Your task to perform on an android device: Open Youtube and go to "Your channel" Image 0: 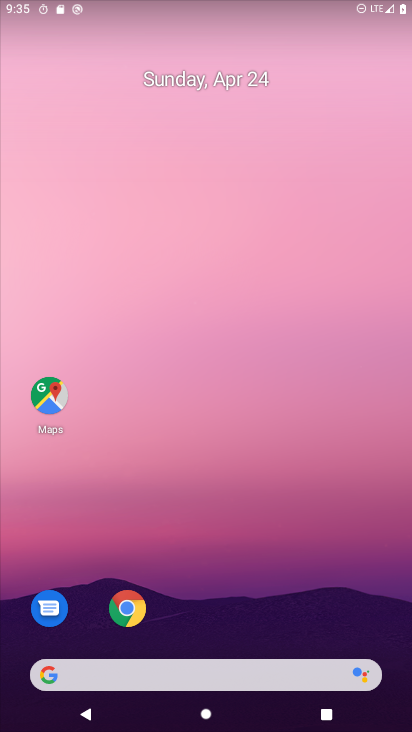
Step 0: drag from (256, 454) to (228, 46)
Your task to perform on an android device: Open Youtube and go to "Your channel" Image 1: 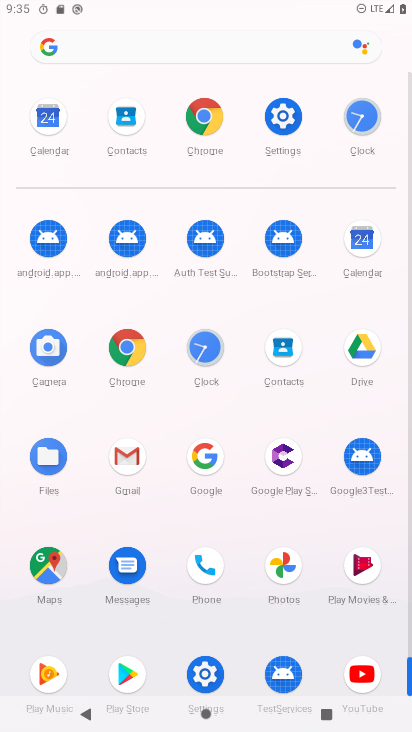
Step 1: click (358, 664)
Your task to perform on an android device: Open Youtube and go to "Your channel" Image 2: 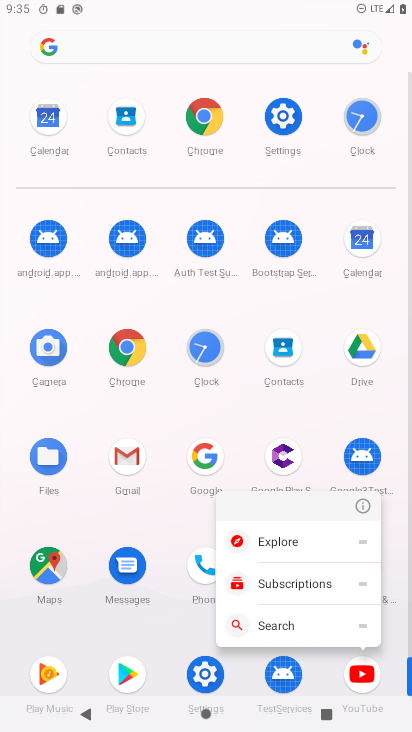
Step 2: click (365, 669)
Your task to perform on an android device: Open Youtube and go to "Your channel" Image 3: 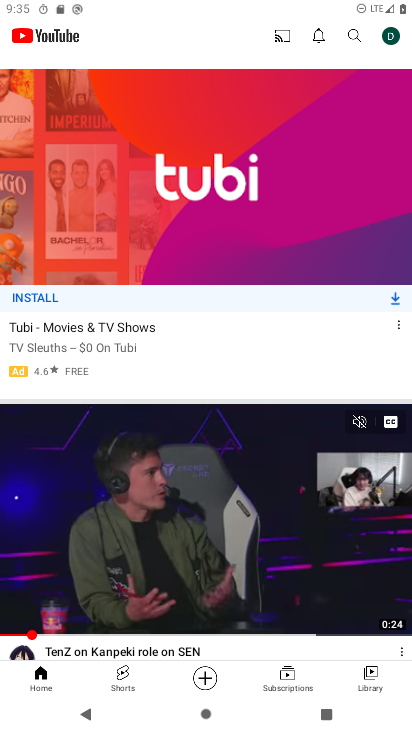
Step 3: click (392, 34)
Your task to perform on an android device: Open Youtube and go to "Your channel" Image 4: 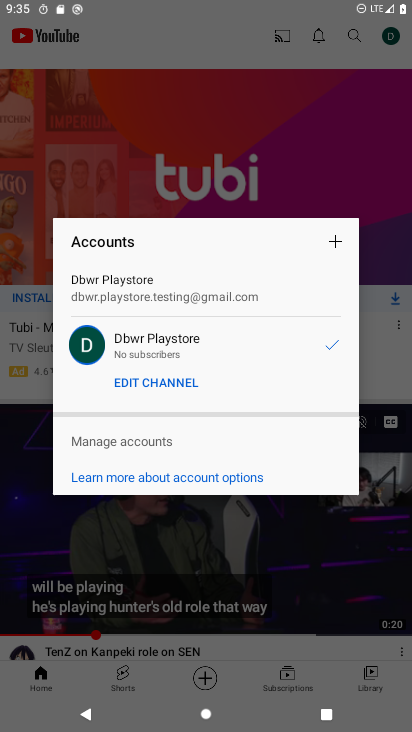
Step 4: click (392, 34)
Your task to perform on an android device: Open Youtube and go to "Your channel" Image 5: 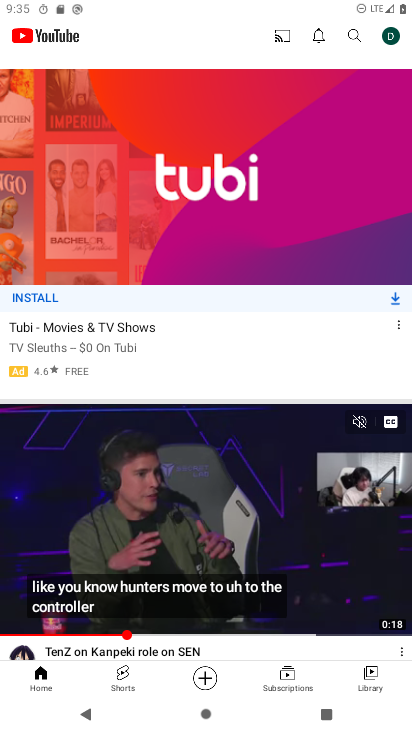
Step 5: click (392, 34)
Your task to perform on an android device: Open Youtube and go to "Your channel" Image 6: 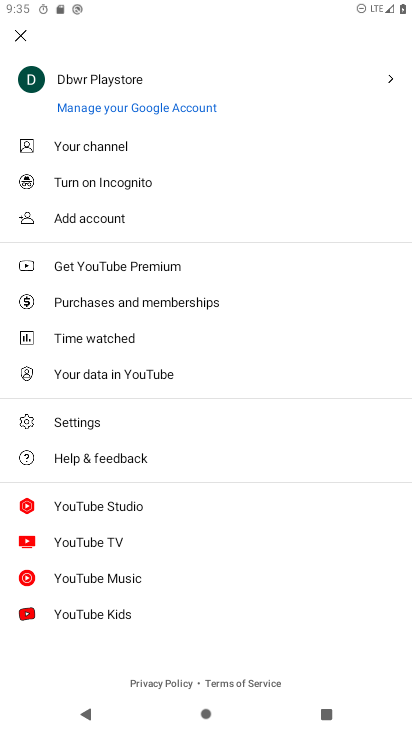
Step 6: click (158, 147)
Your task to perform on an android device: Open Youtube and go to "Your channel" Image 7: 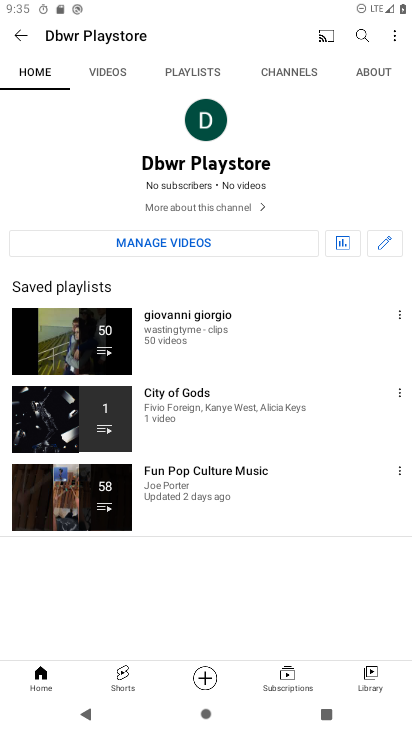
Step 7: task complete